Your task to perform on an android device: delete the emails in spam in the gmail app Image 0: 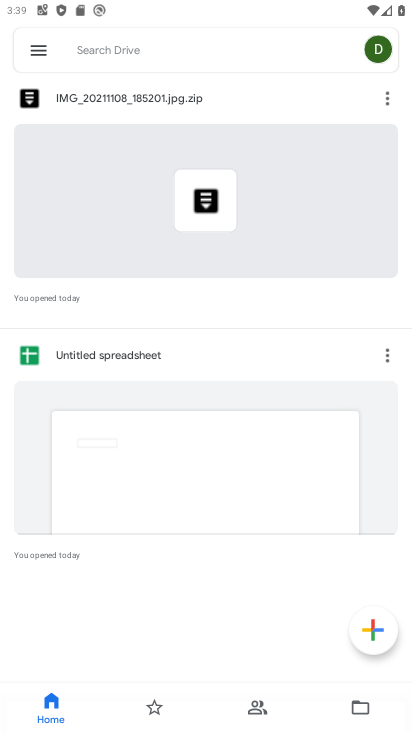
Step 0: press back button
Your task to perform on an android device: delete the emails in spam in the gmail app Image 1: 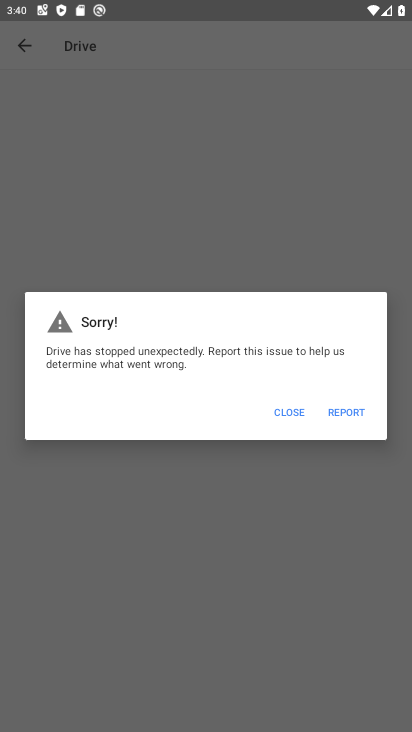
Step 1: press back button
Your task to perform on an android device: delete the emails in spam in the gmail app Image 2: 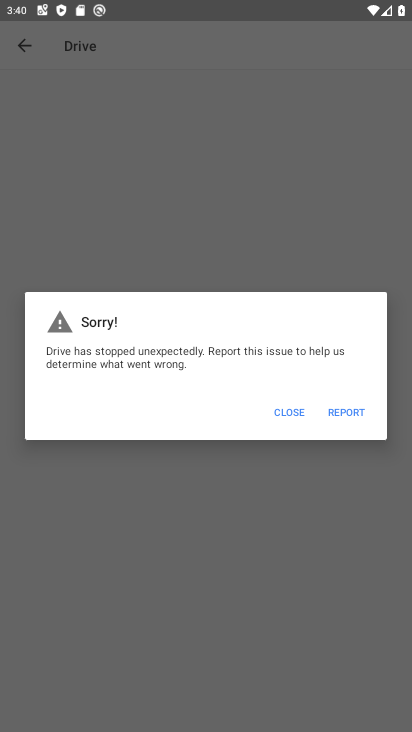
Step 2: press home button
Your task to perform on an android device: delete the emails in spam in the gmail app Image 3: 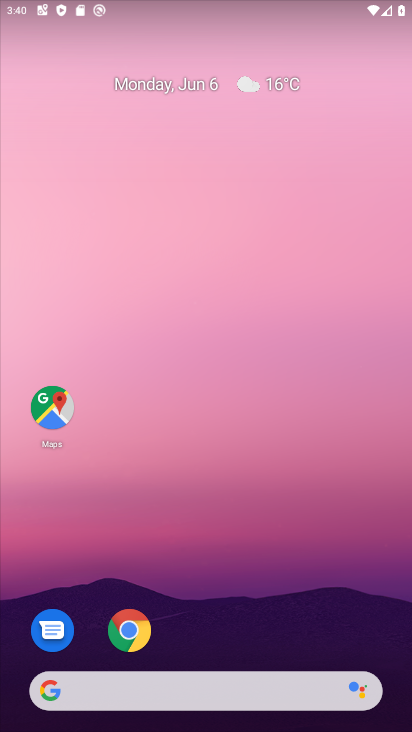
Step 3: drag from (220, 630) to (241, 145)
Your task to perform on an android device: delete the emails in spam in the gmail app Image 4: 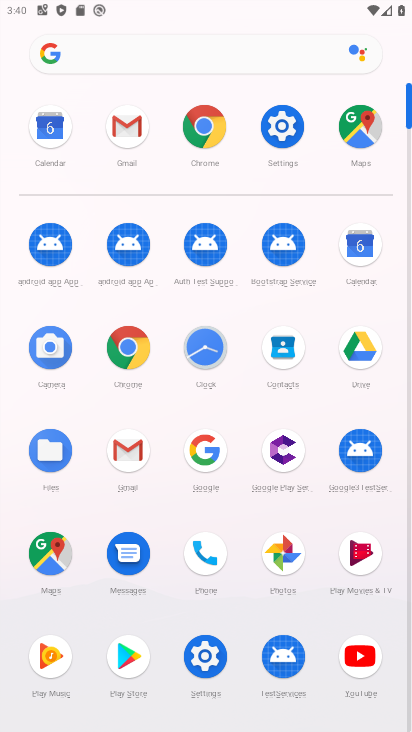
Step 4: click (126, 121)
Your task to perform on an android device: delete the emails in spam in the gmail app Image 5: 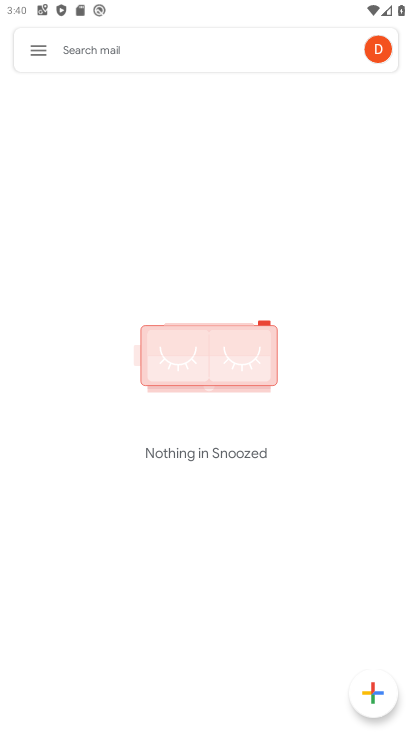
Step 5: click (47, 46)
Your task to perform on an android device: delete the emails in spam in the gmail app Image 6: 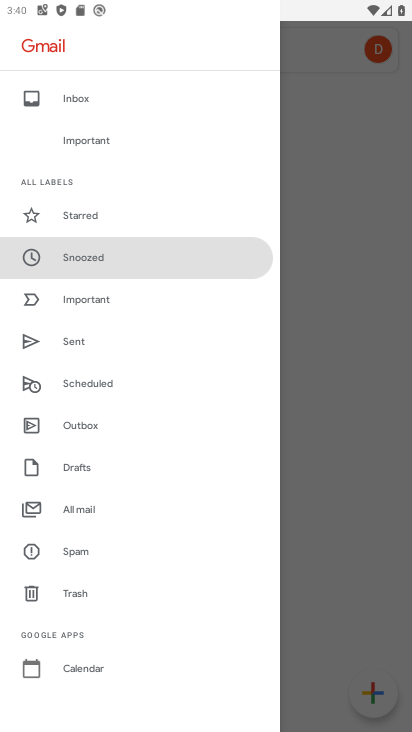
Step 6: click (81, 547)
Your task to perform on an android device: delete the emails in spam in the gmail app Image 7: 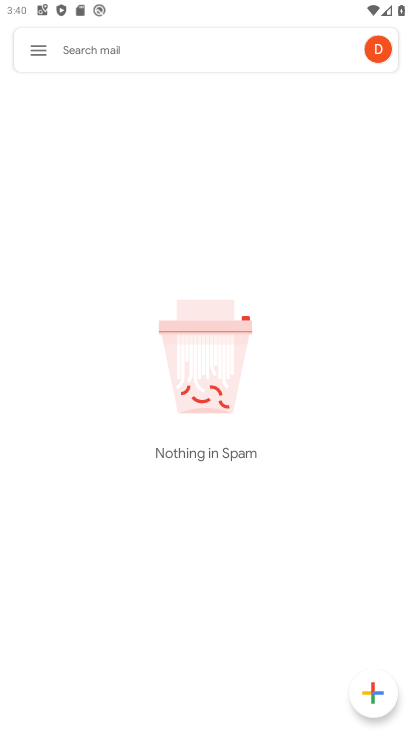
Step 7: task complete